Your task to perform on an android device: Go to Android settings Image 0: 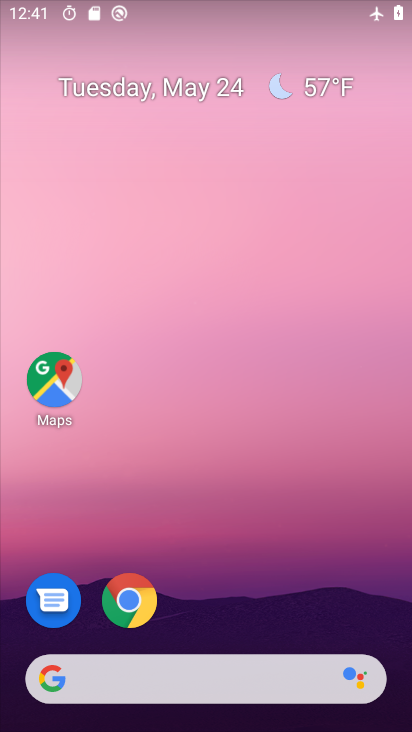
Step 0: drag from (281, 607) to (331, 76)
Your task to perform on an android device: Go to Android settings Image 1: 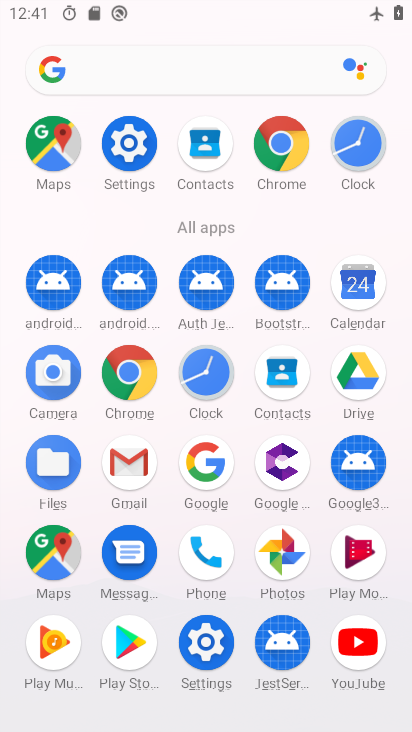
Step 1: click (140, 131)
Your task to perform on an android device: Go to Android settings Image 2: 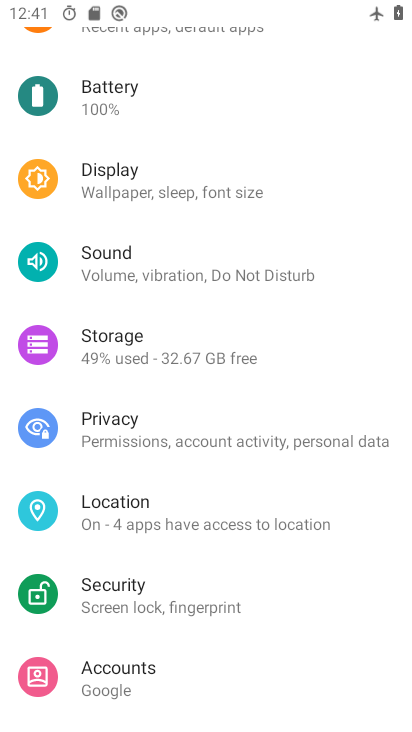
Step 2: drag from (191, 635) to (276, 105)
Your task to perform on an android device: Go to Android settings Image 3: 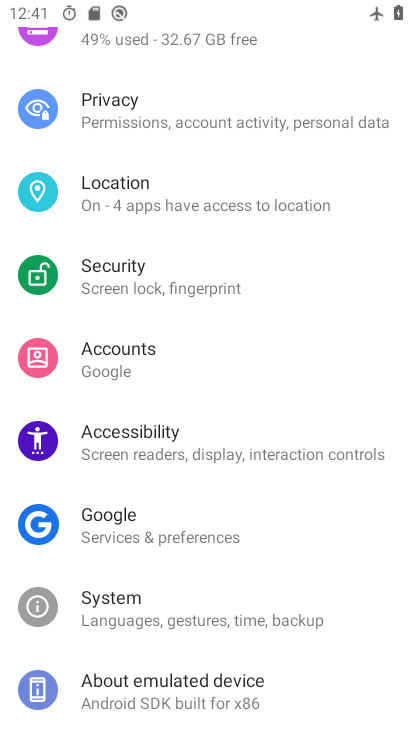
Step 3: click (131, 686)
Your task to perform on an android device: Go to Android settings Image 4: 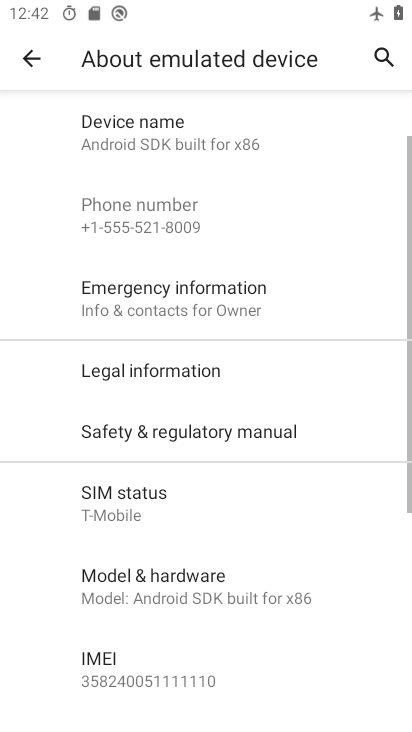
Step 4: task complete